Your task to perform on an android device: check out phone information Image 0: 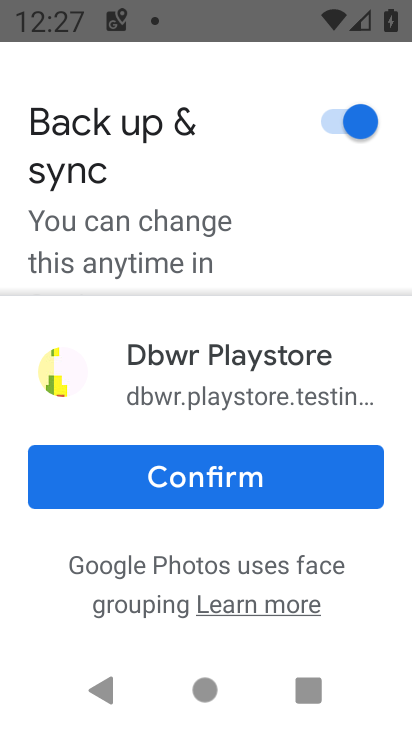
Step 0: press home button
Your task to perform on an android device: check out phone information Image 1: 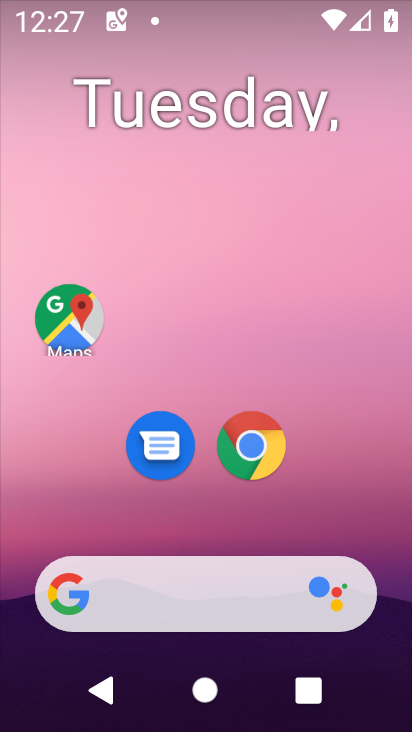
Step 1: drag from (386, 550) to (385, 273)
Your task to perform on an android device: check out phone information Image 2: 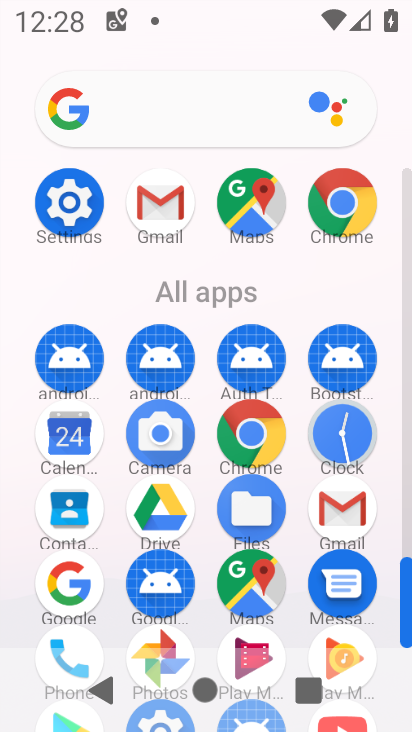
Step 2: drag from (390, 517) to (396, 300)
Your task to perform on an android device: check out phone information Image 3: 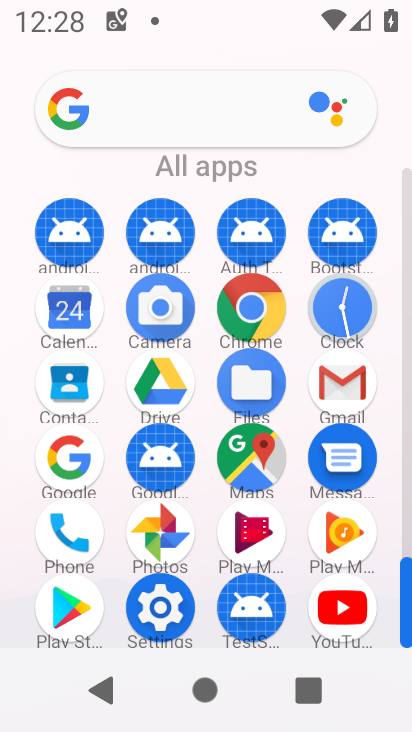
Step 3: click (61, 554)
Your task to perform on an android device: check out phone information Image 4: 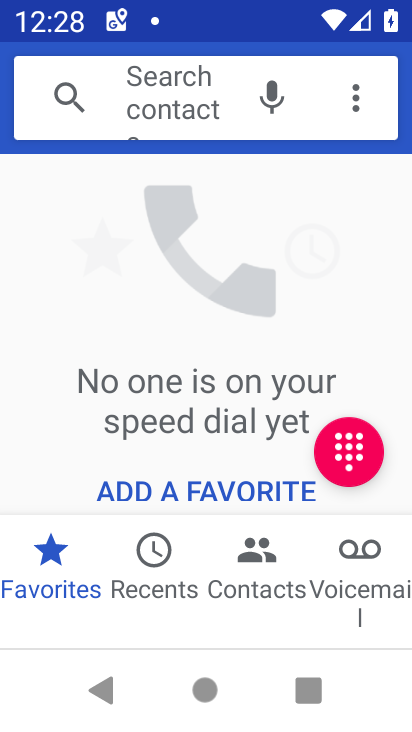
Step 4: click (162, 559)
Your task to perform on an android device: check out phone information Image 5: 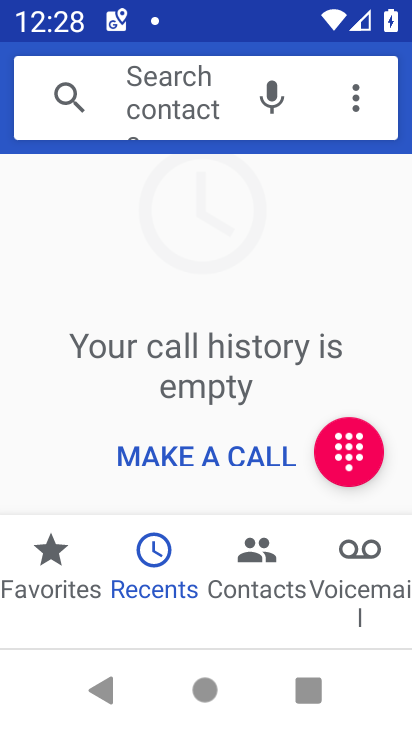
Step 5: task complete